Your task to perform on an android device: Open the web browser Image 0: 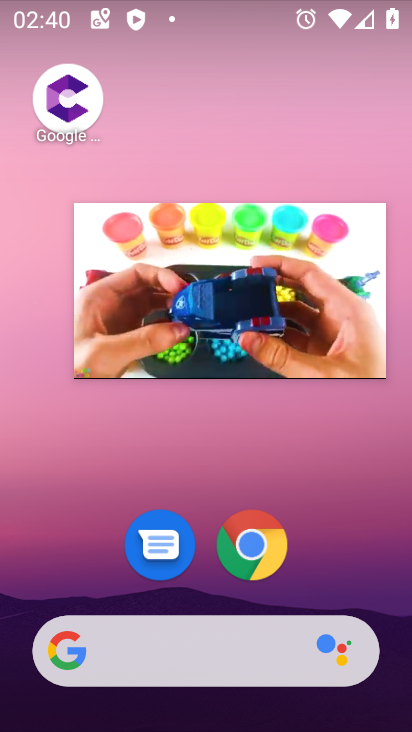
Step 0: click (341, 237)
Your task to perform on an android device: Open the web browser Image 1: 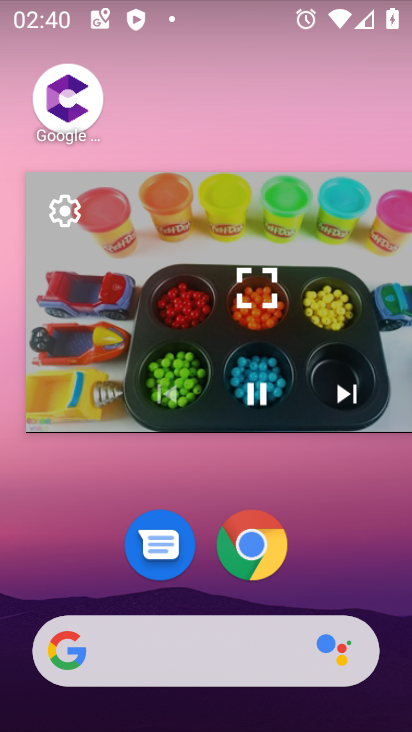
Step 1: click (408, 195)
Your task to perform on an android device: Open the web browser Image 2: 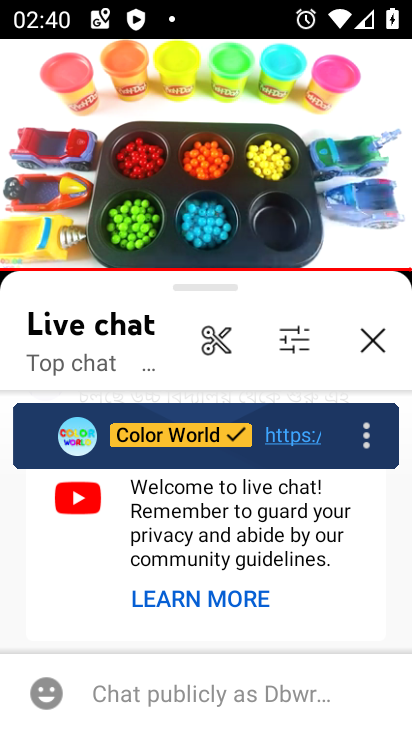
Step 2: click (203, 141)
Your task to perform on an android device: Open the web browser Image 3: 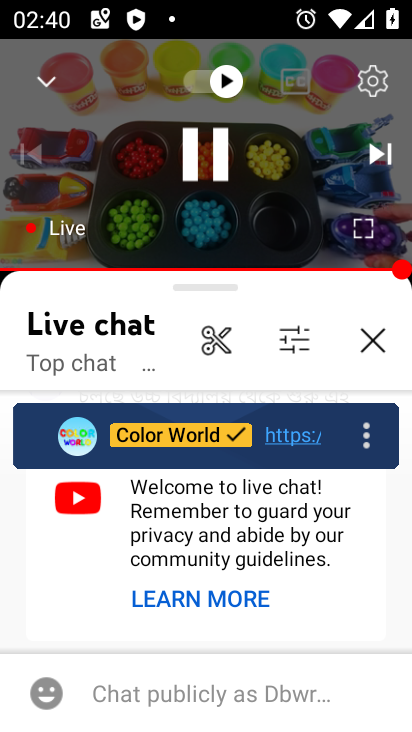
Step 3: click (226, 152)
Your task to perform on an android device: Open the web browser Image 4: 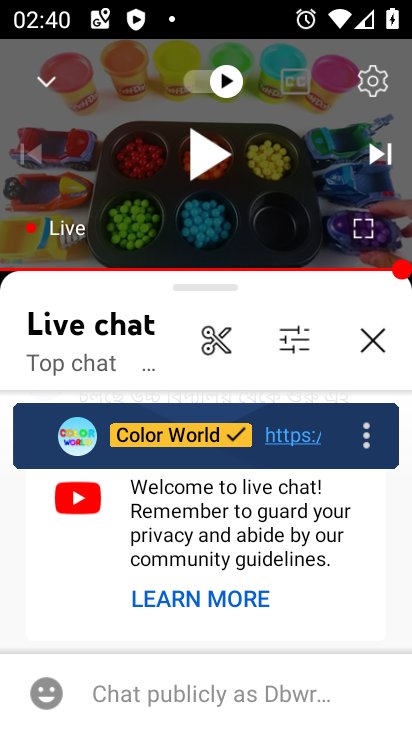
Step 4: press home button
Your task to perform on an android device: Open the web browser Image 5: 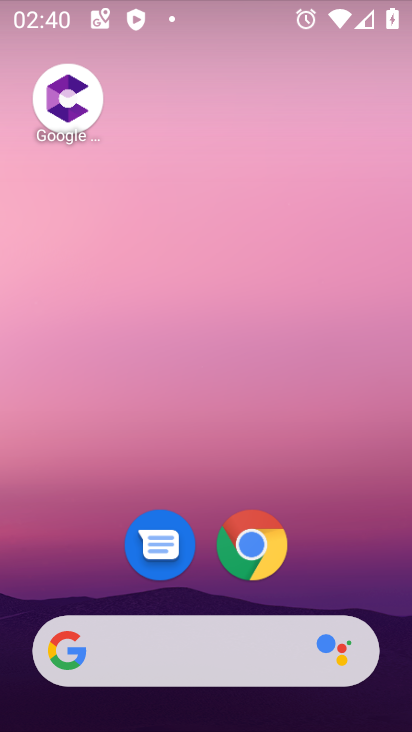
Step 5: click (258, 549)
Your task to perform on an android device: Open the web browser Image 6: 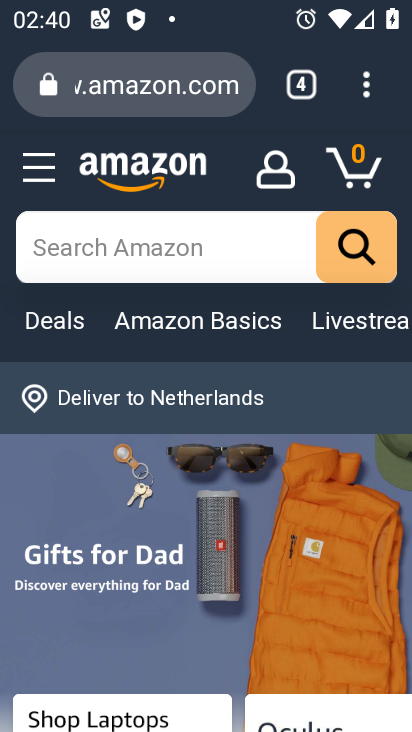
Step 6: task complete